Your task to perform on an android device: Open sound settings Image 0: 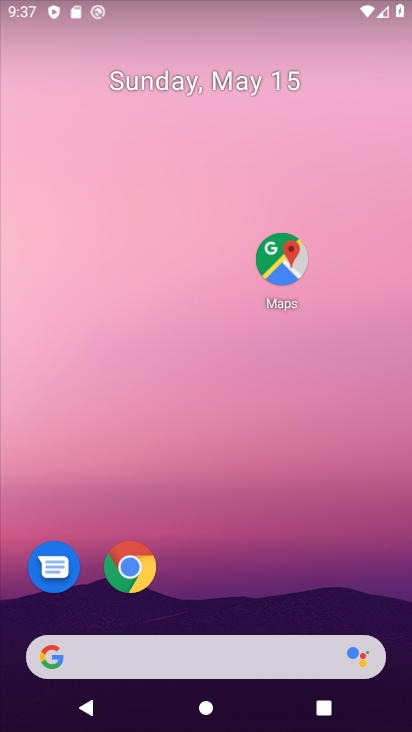
Step 0: drag from (218, 570) to (228, 123)
Your task to perform on an android device: Open sound settings Image 1: 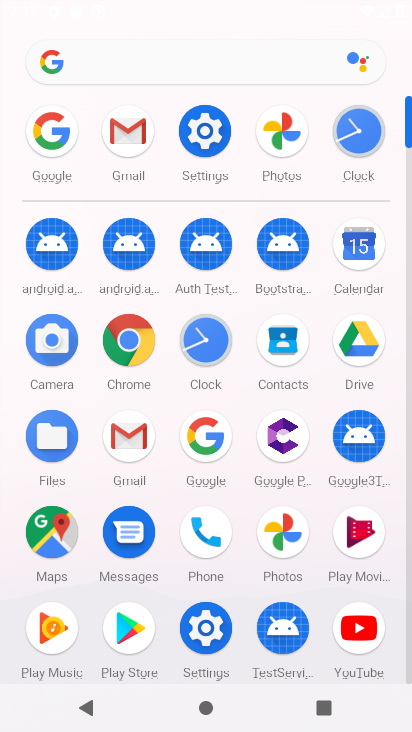
Step 1: click (211, 127)
Your task to perform on an android device: Open sound settings Image 2: 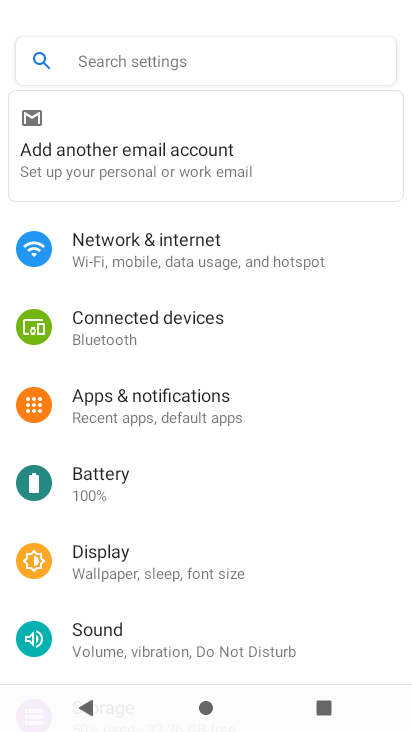
Step 2: click (137, 636)
Your task to perform on an android device: Open sound settings Image 3: 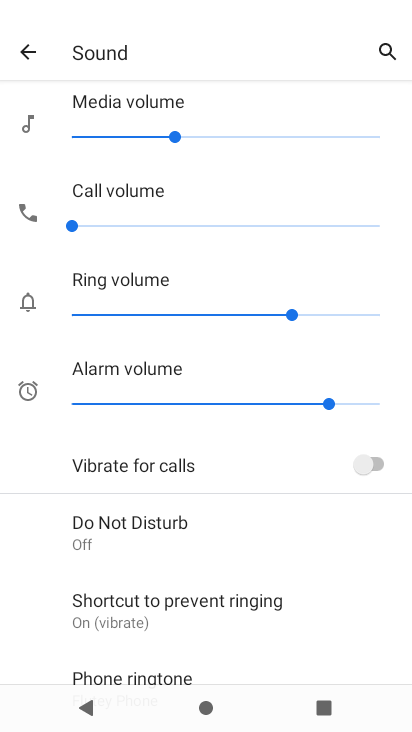
Step 3: task complete